Your task to perform on an android device: turn on translation in the chrome app Image 0: 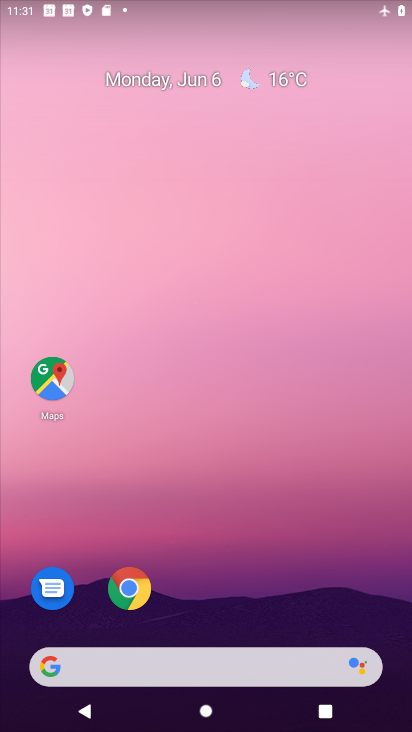
Step 0: click (128, 591)
Your task to perform on an android device: turn on translation in the chrome app Image 1: 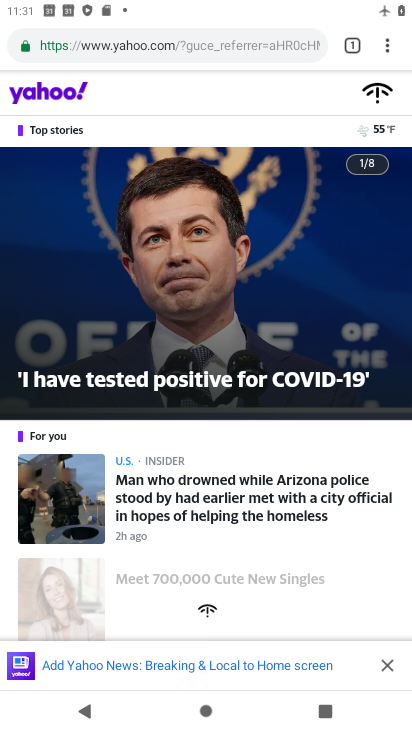
Step 1: click (387, 46)
Your task to perform on an android device: turn on translation in the chrome app Image 2: 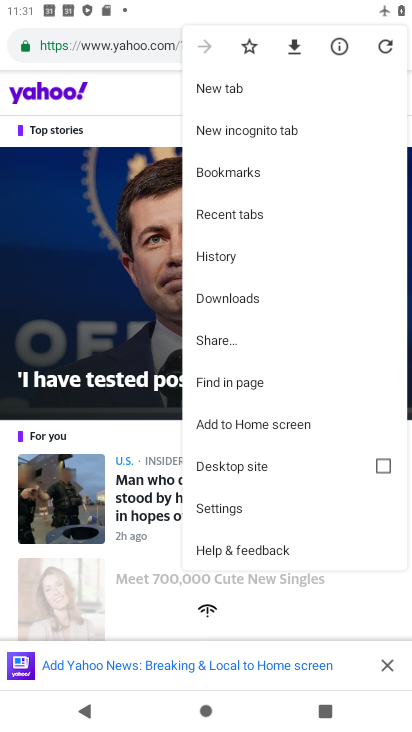
Step 2: click (226, 508)
Your task to perform on an android device: turn on translation in the chrome app Image 3: 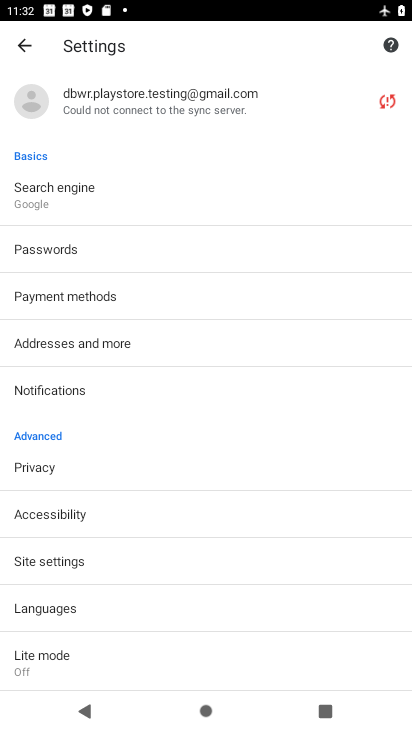
Step 3: click (49, 608)
Your task to perform on an android device: turn on translation in the chrome app Image 4: 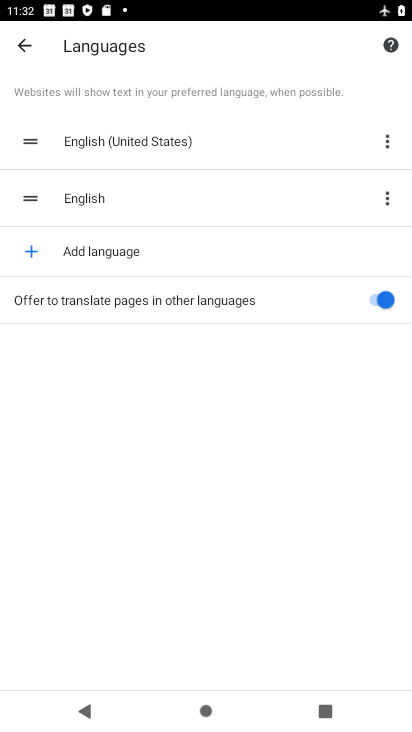
Step 4: task complete